Your task to perform on an android device: open wifi settings Image 0: 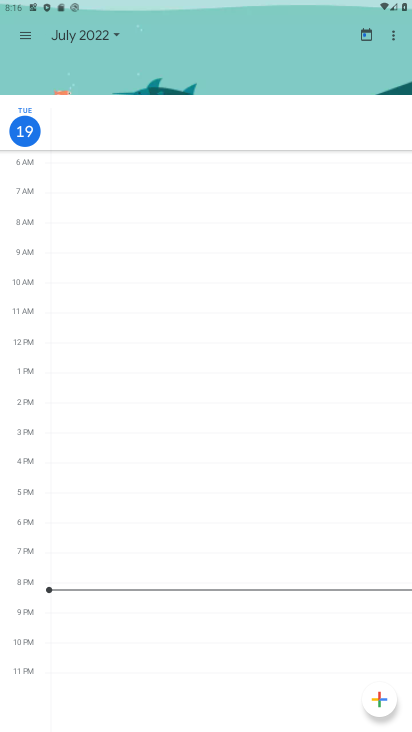
Step 0: press home button
Your task to perform on an android device: open wifi settings Image 1: 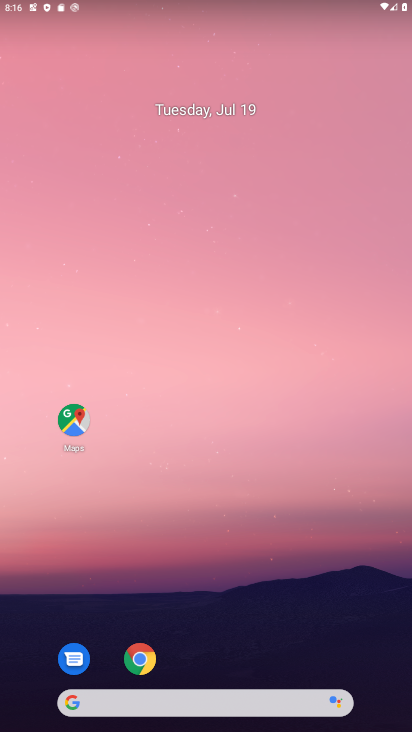
Step 1: drag from (168, 643) to (199, 344)
Your task to perform on an android device: open wifi settings Image 2: 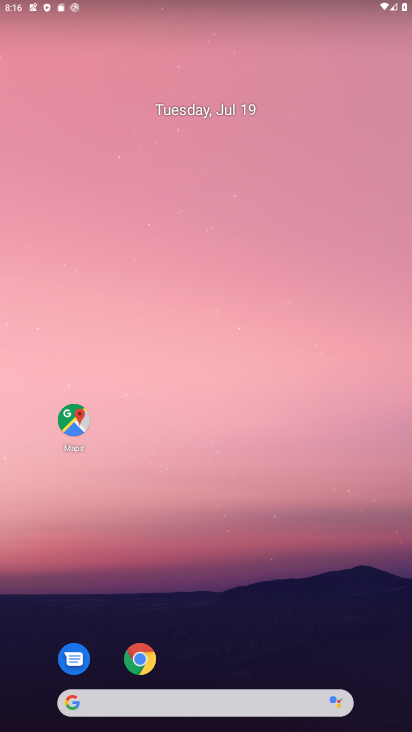
Step 2: drag from (234, 685) to (223, 379)
Your task to perform on an android device: open wifi settings Image 3: 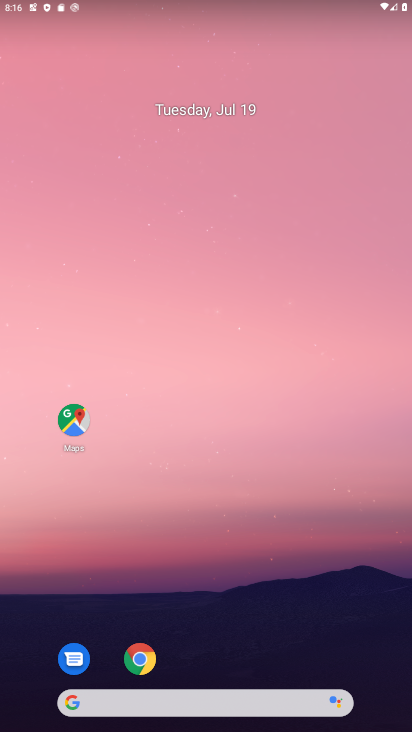
Step 3: drag from (240, 601) to (248, 206)
Your task to perform on an android device: open wifi settings Image 4: 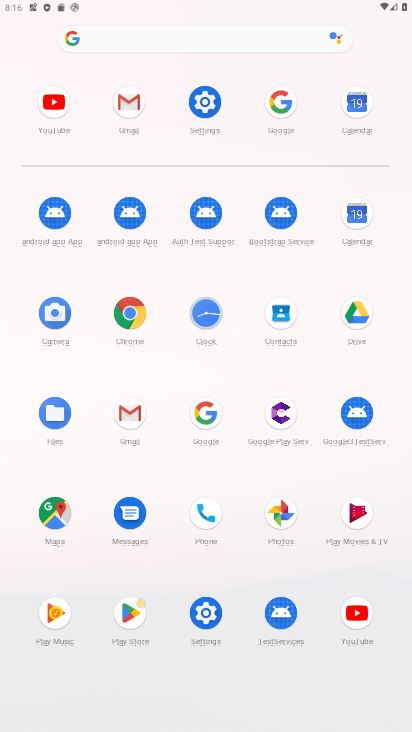
Step 4: click (205, 98)
Your task to perform on an android device: open wifi settings Image 5: 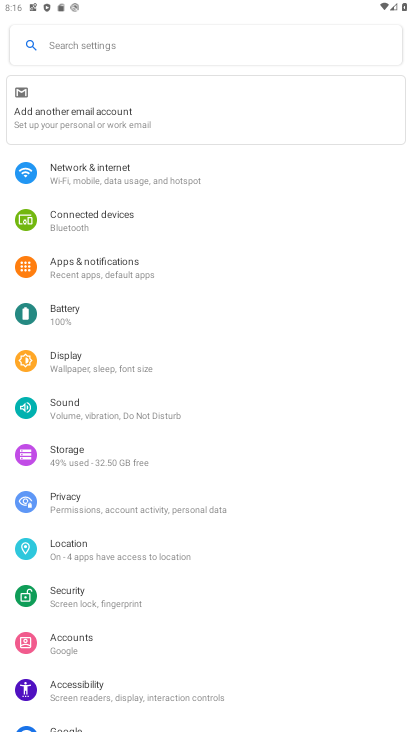
Step 5: click (124, 170)
Your task to perform on an android device: open wifi settings Image 6: 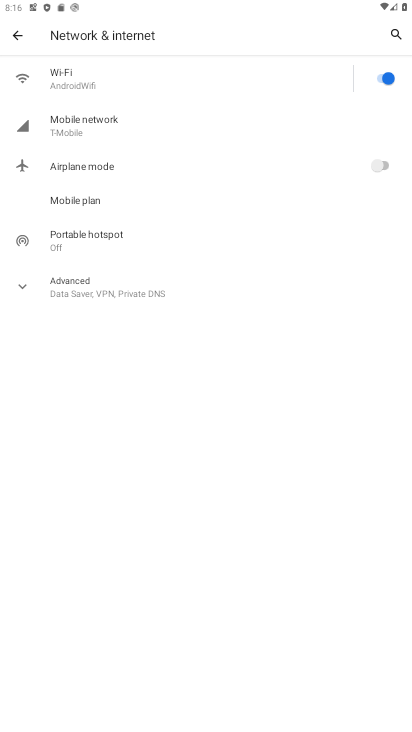
Step 6: click (86, 68)
Your task to perform on an android device: open wifi settings Image 7: 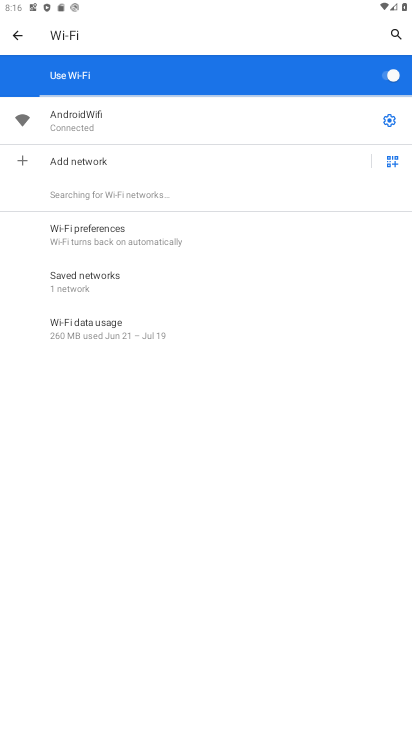
Step 7: click (389, 120)
Your task to perform on an android device: open wifi settings Image 8: 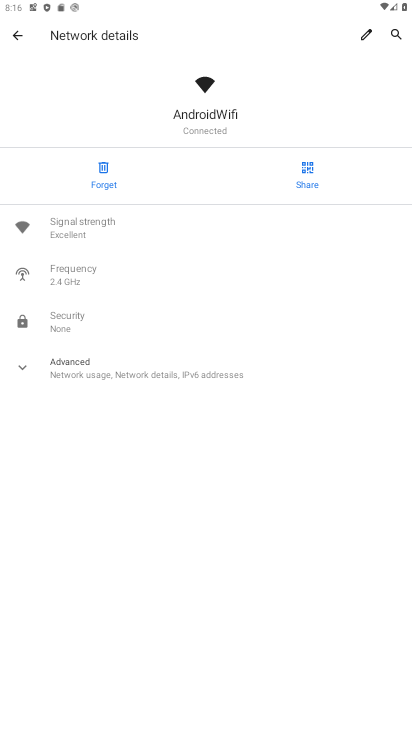
Step 8: task complete